Your task to perform on an android device: Open battery settings Image 0: 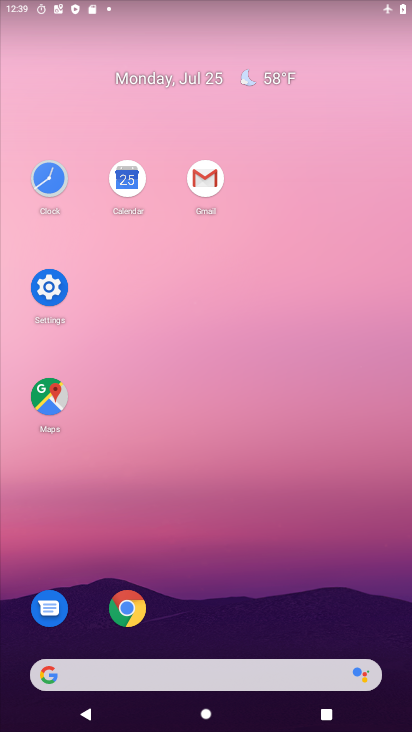
Step 0: click (58, 291)
Your task to perform on an android device: Open battery settings Image 1: 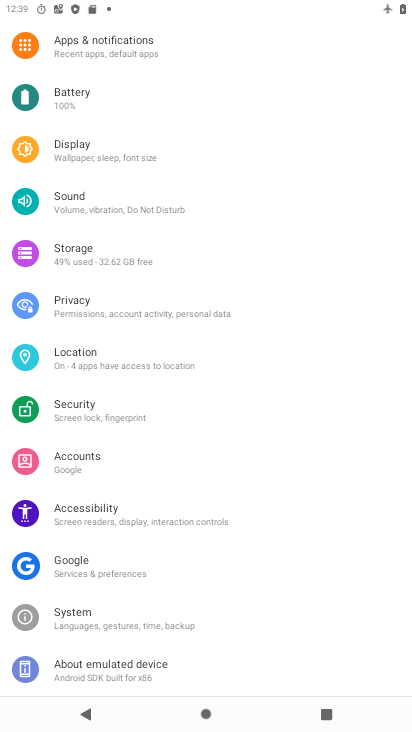
Step 1: click (87, 111)
Your task to perform on an android device: Open battery settings Image 2: 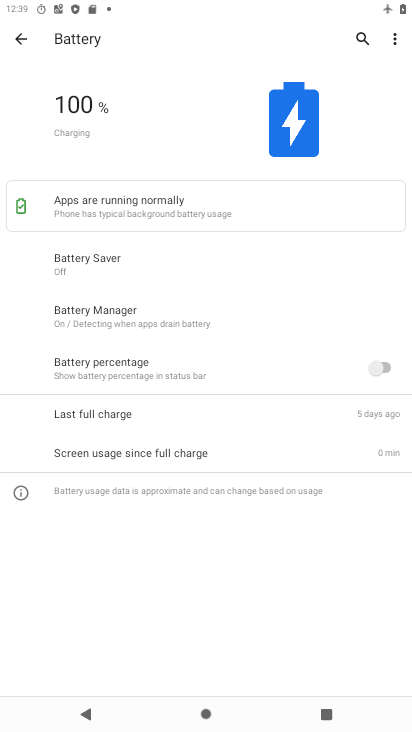
Step 2: task complete